Your task to perform on an android device: snooze an email in the gmail app Image 0: 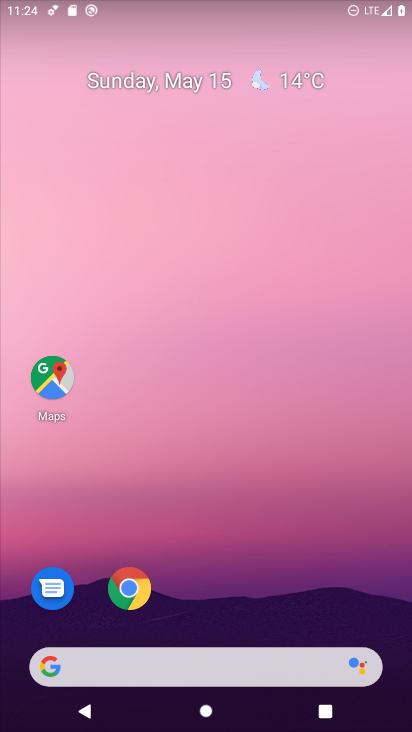
Step 0: drag from (258, 616) to (335, 7)
Your task to perform on an android device: snooze an email in the gmail app Image 1: 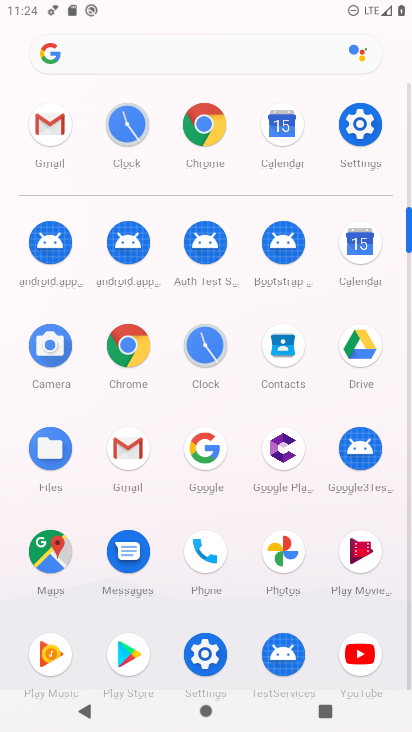
Step 1: click (123, 457)
Your task to perform on an android device: snooze an email in the gmail app Image 2: 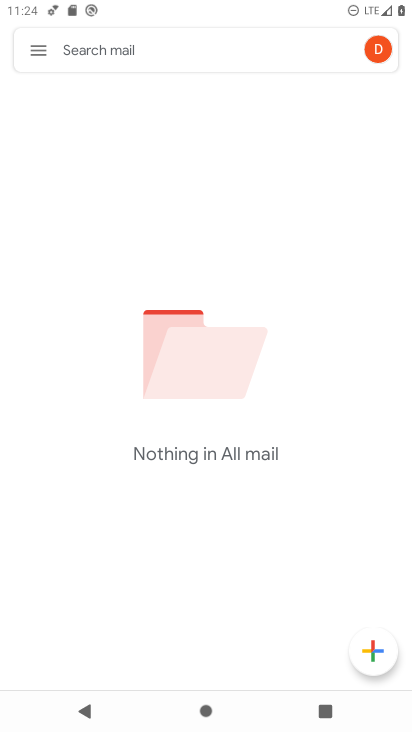
Step 2: click (41, 57)
Your task to perform on an android device: snooze an email in the gmail app Image 3: 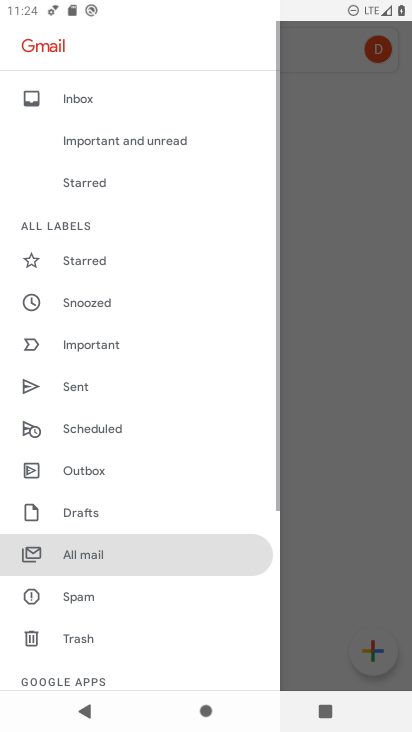
Step 3: click (134, 558)
Your task to perform on an android device: snooze an email in the gmail app Image 4: 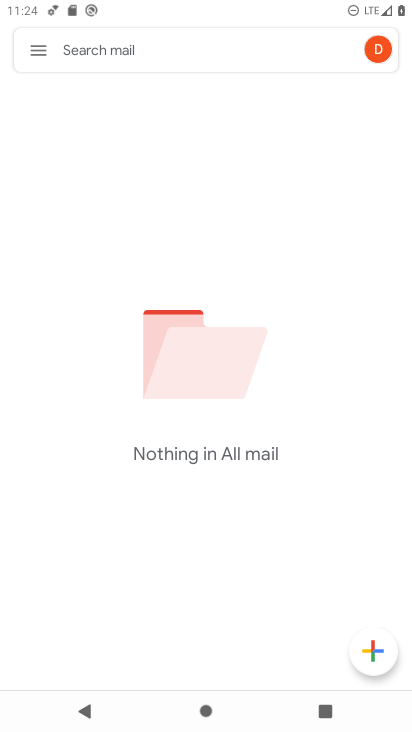
Step 4: task complete